Your task to perform on an android device: set the stopwatch Image 0: 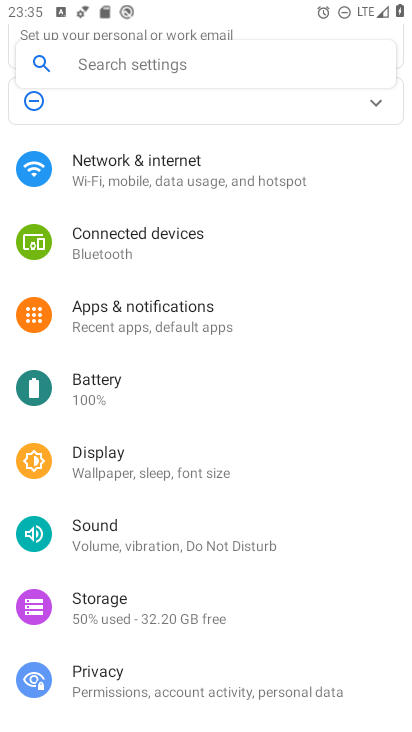
Step 0: press home button
Your task to perform on an android device: set the stopwatch Image 1: 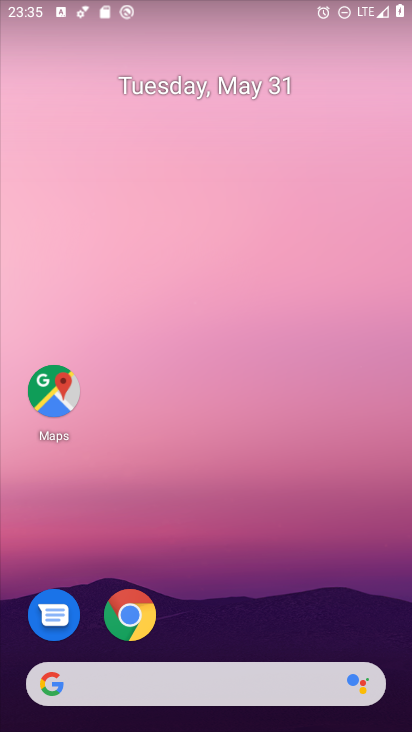
Step 1: drag from (393, 664) to (292, 138)
Your task to perform on an android device: set the stopwatch Image 2: 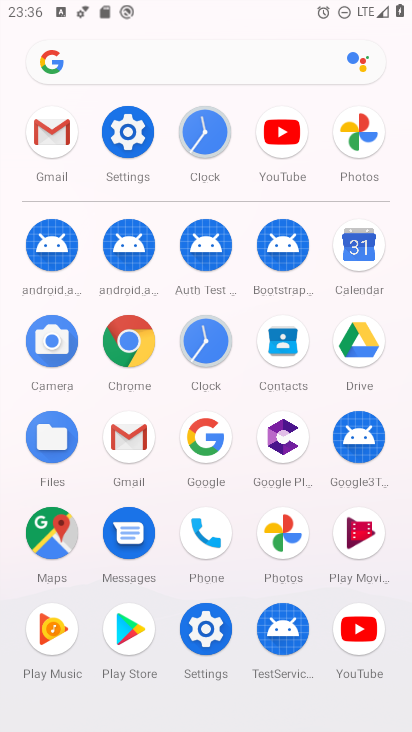
Step 2: click (208, 341)
Your task to perform on an android device: set the stopwatch Image 3: 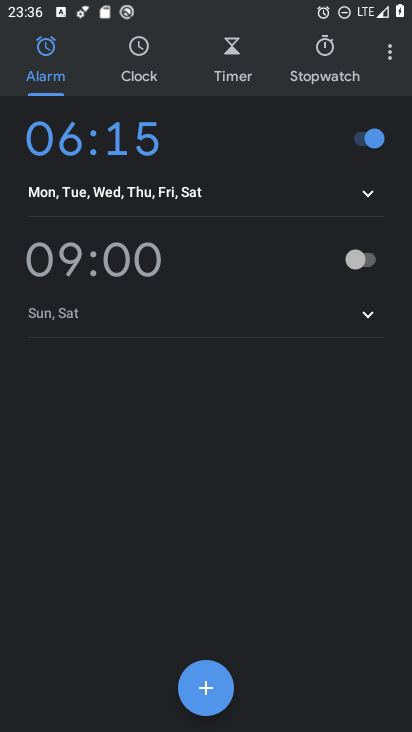
Step 3: click (323, 52)
Your task to perform on an android device: set the stopwatch Image 4: 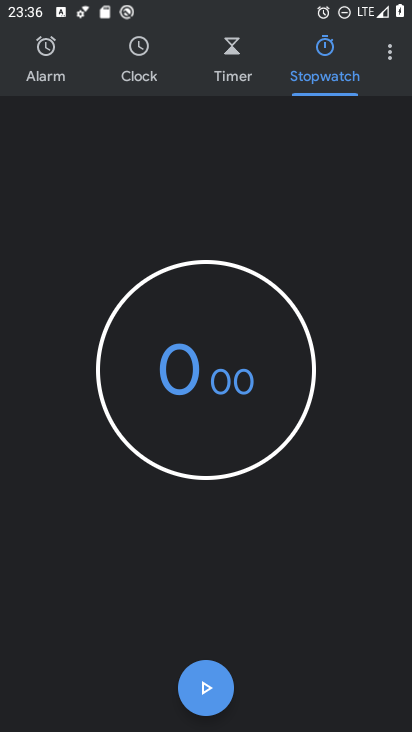
Step 4: task complete